Your task to perform on an android device: turn on javascript in the chrome app Image 0: 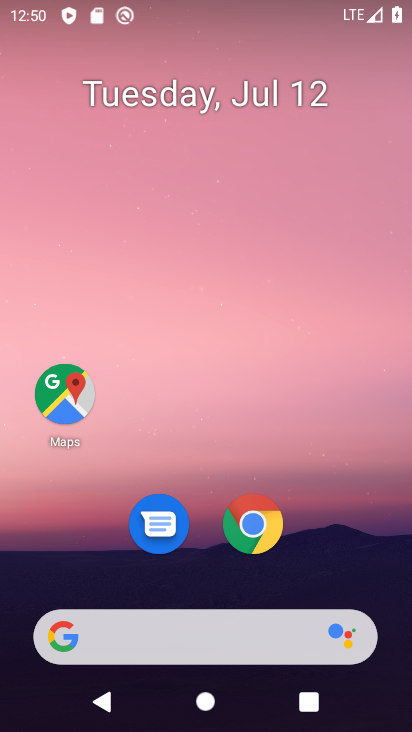
Step 0: click (267, 517)
Your task to perform on an android device: turn on javascript in the chrome app Image 1: 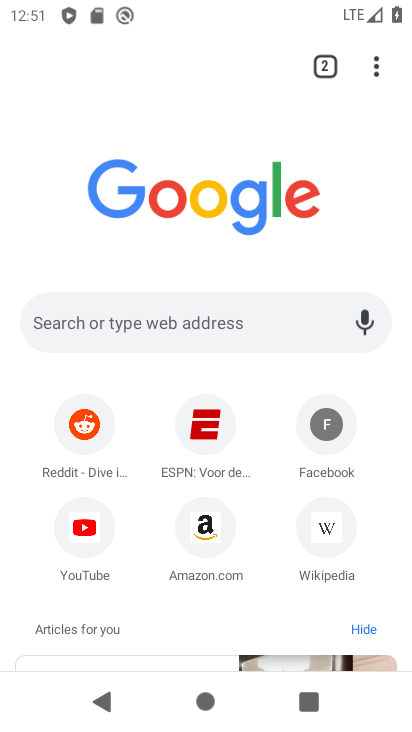
Step 1: click (377, 73)
Your task to perform on an android device: turn on javascript in the chrome app Image 2: 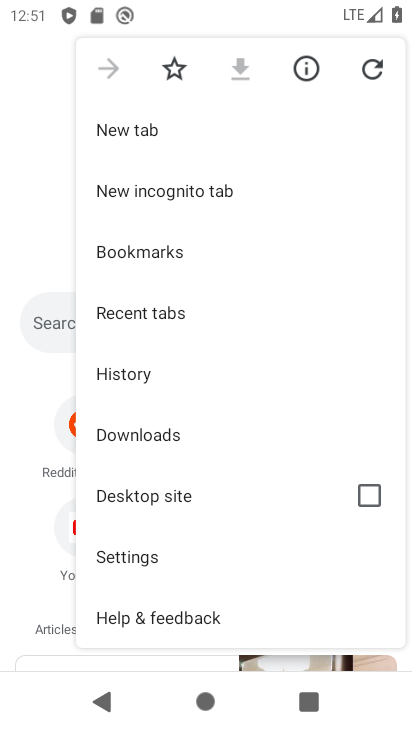
Step 2: click (144, 560)
Your task to perform on an android device: turn on javascript in the chrome app Image 3: 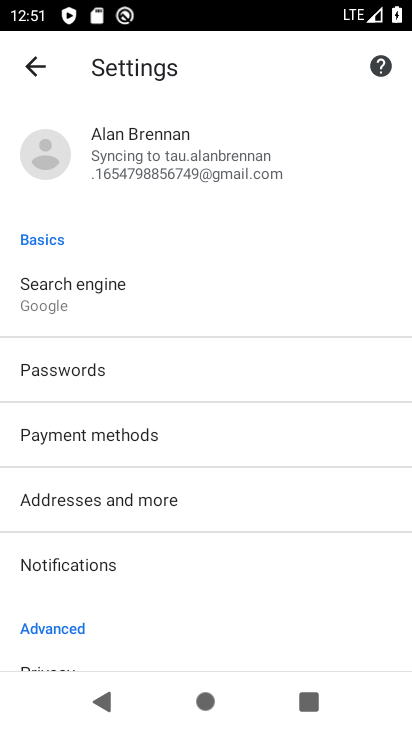
Step 3: drag from (204, 521) to (209, 248)
Your task to perform on an android device: turn on javascript in the chrome app Image 4: 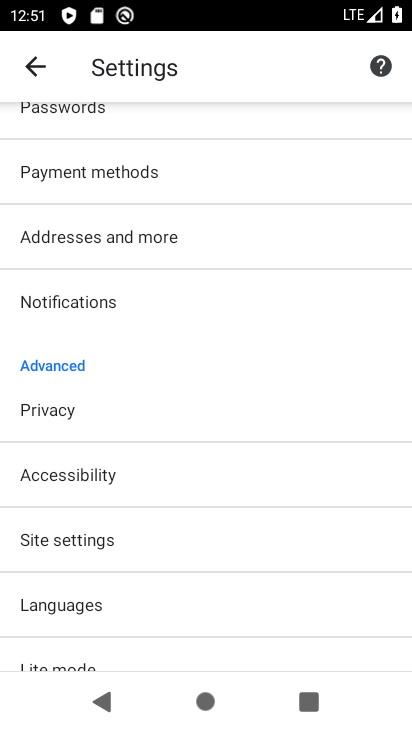
Step 4: click (106, 536)
Your task to perform on an android device: turn on javascript in the chrome app Image 5: 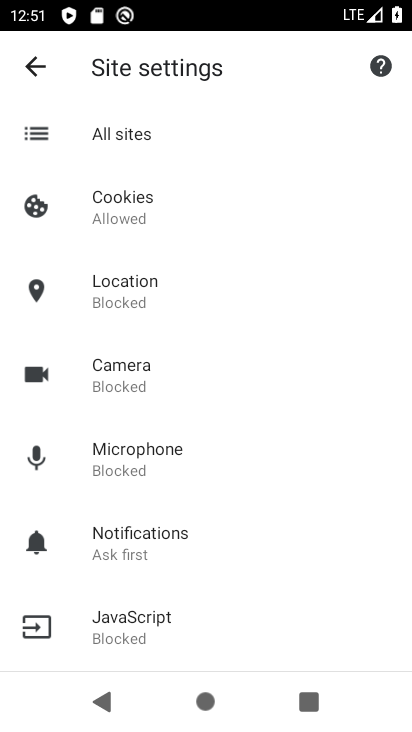
Step 5: click (151, 617)
Your task to perform on an android device: turn on javascript in the chrome app Image 6: 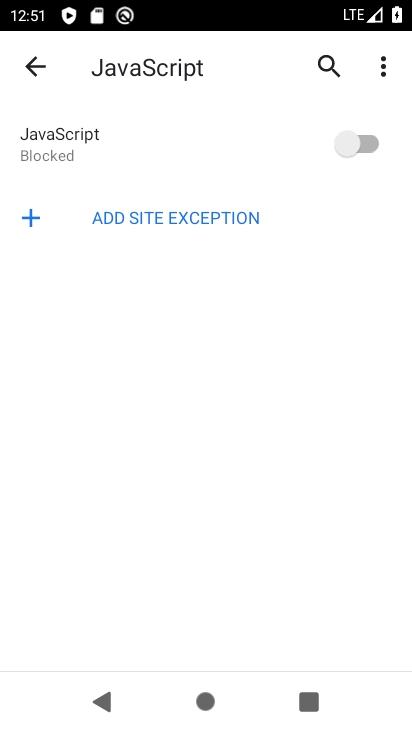
Step 6: click (360, 138)
Your task to perform on an android device: turn on javascript in the chrome app Image 7: 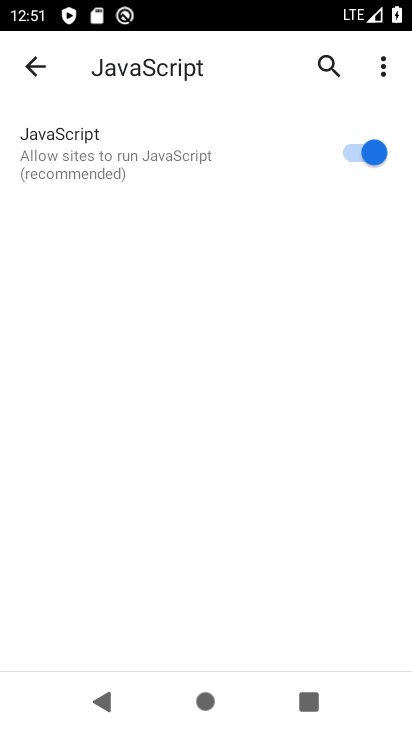
Step 7: task complete